Your task to perform on an android device: Google the capital of Chile Image 0: 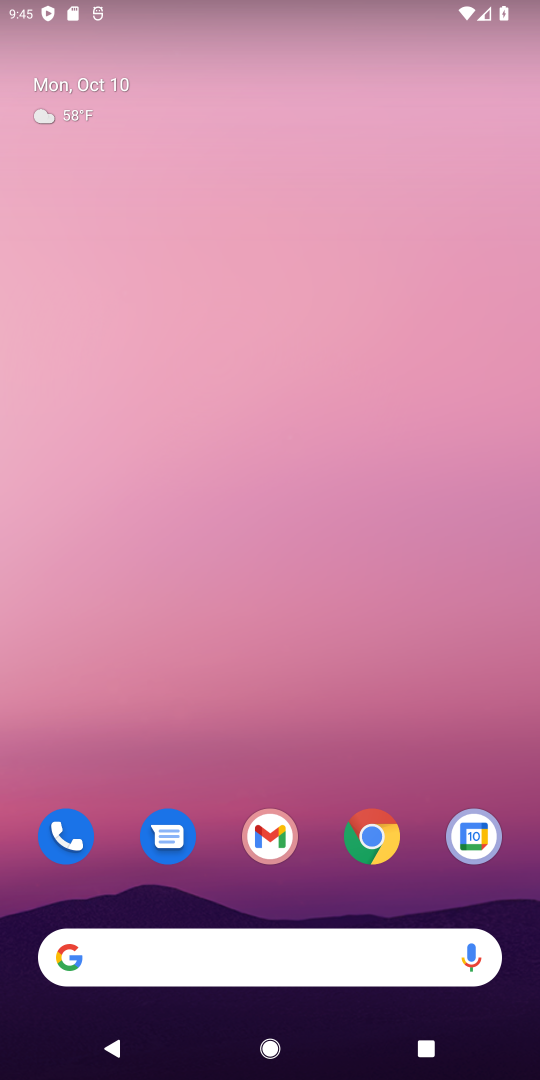
Step 0: drag from (237, 938) to (296, 301)
Your task to perform on an android device: Google the capital of Chile Image 1: 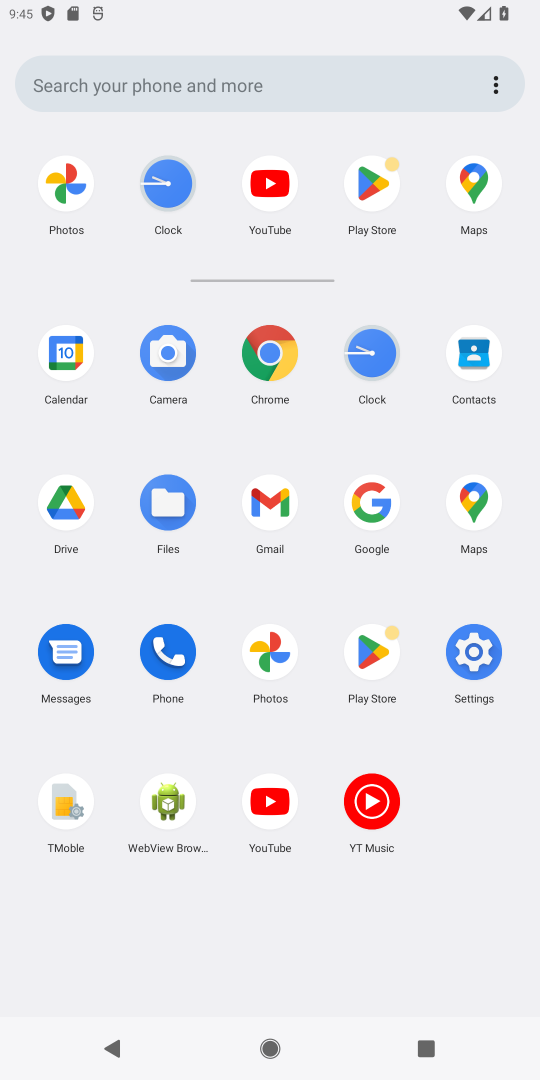
Step 1: click (377, 509)
Your task to perform on an android device: Google the capital of Chile Image 2: 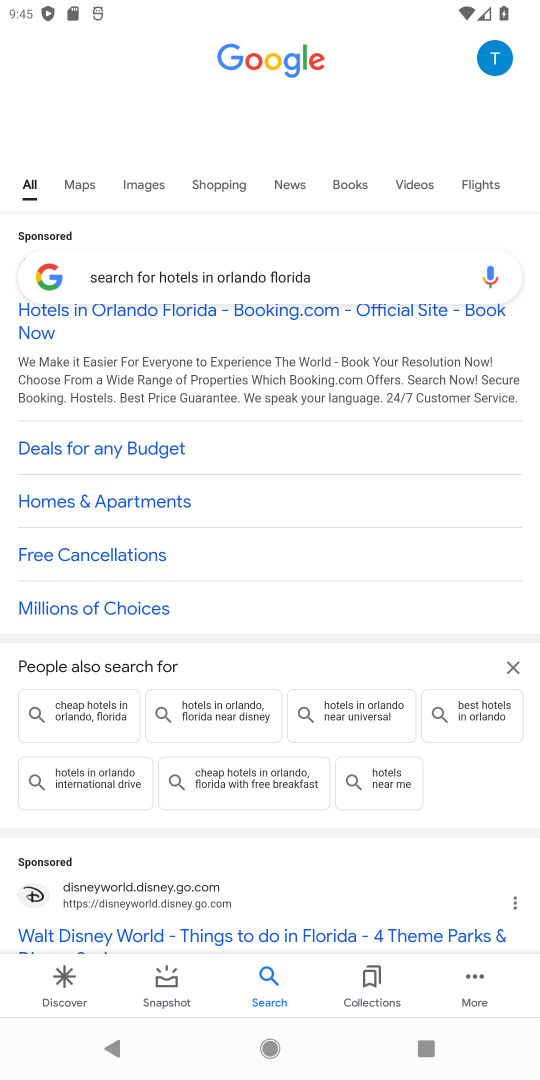
Step 2: click (225, 281)
Your task to perform on an android device: Google the capital of Chile Image 3: 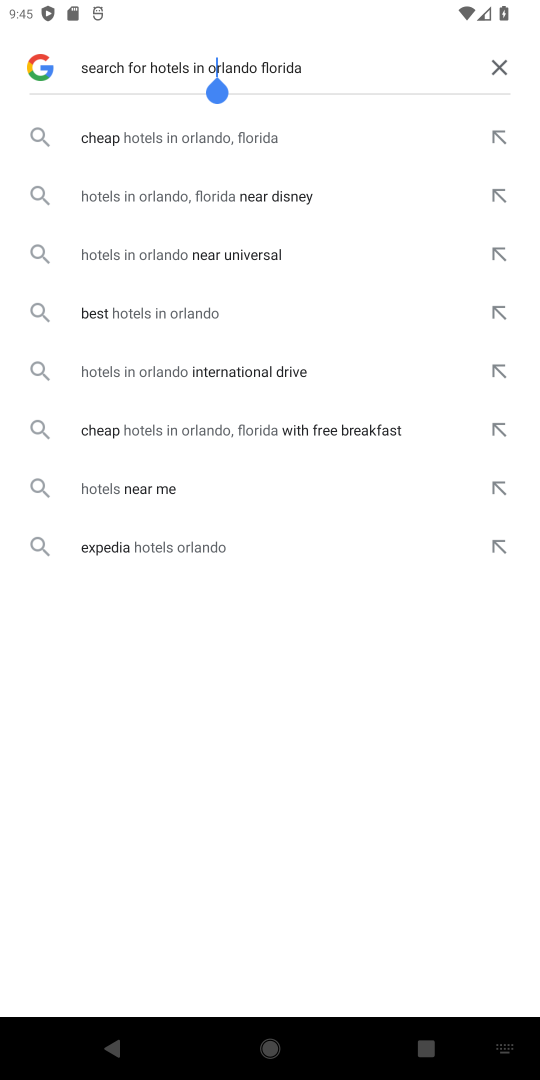
Step 3: click (507, 76)
Your task to perform on an android device: Google the capital of Chile Image 4: 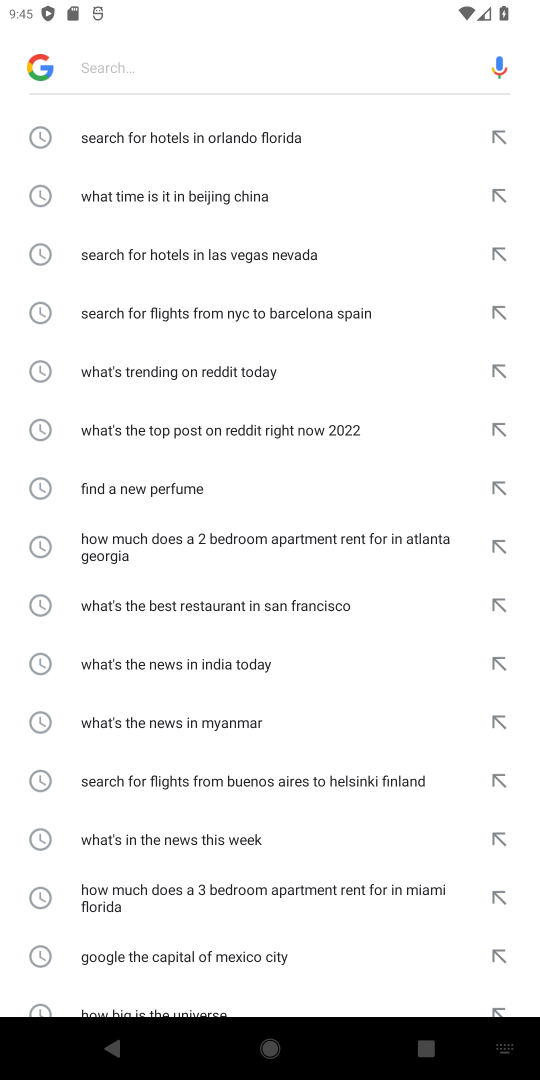
Step 4: type "Google the capital of Chile"
Your task to perform on an android device: Google the capital of Chile Image 5: 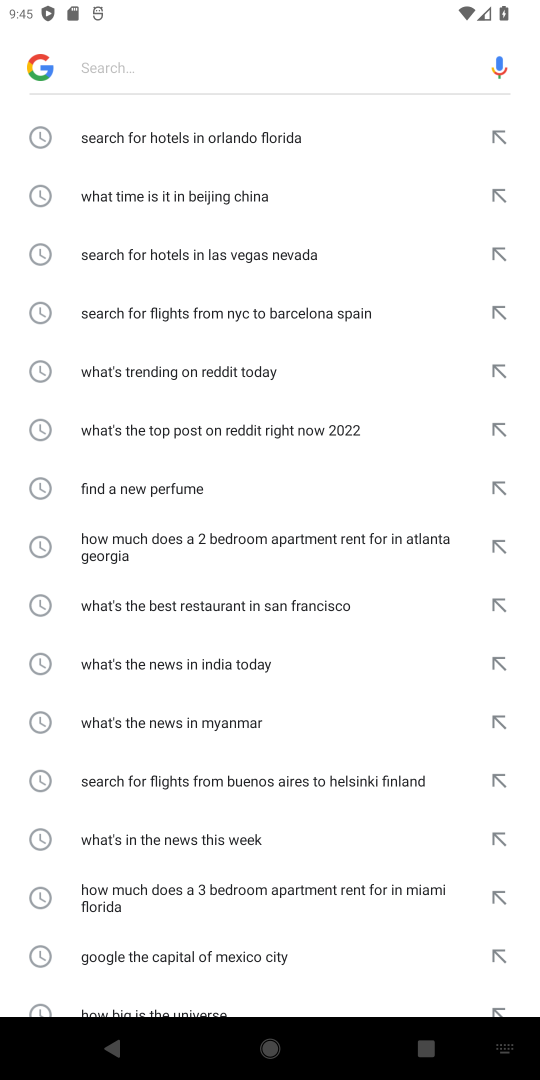
Step 5: click (156, 68)
Your task to perform on an android device: Google the capital of Chile Image 6: 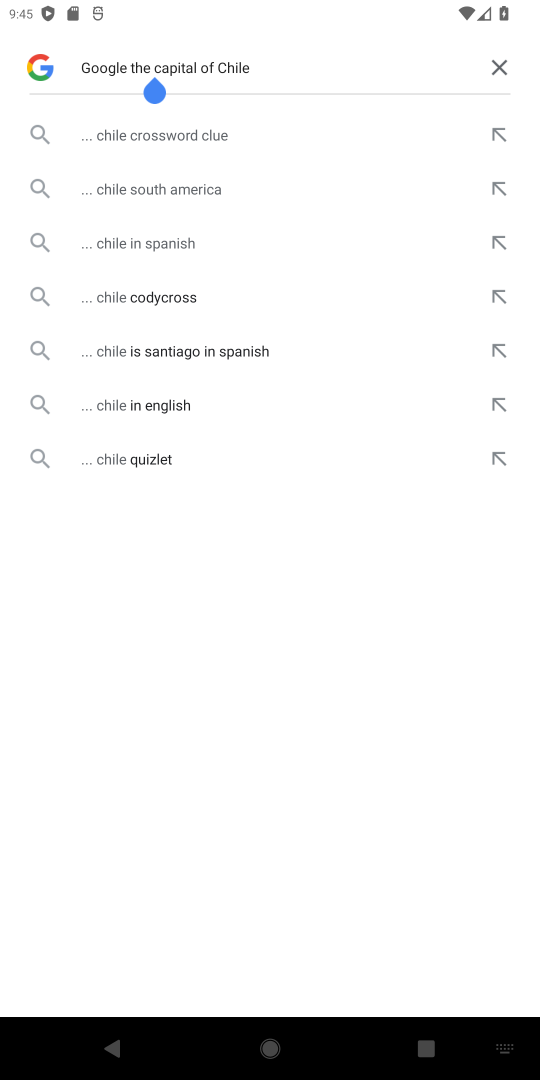
Step 6: click (193, 124)
Your task to perform on an android device: Google the capital of Chile Image 7: 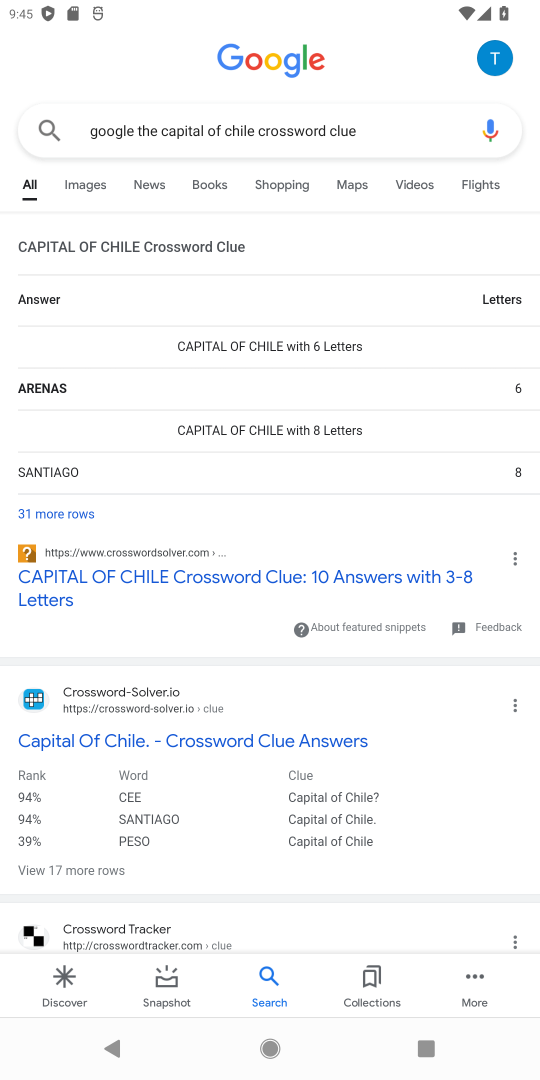
Step 7: task complete